Your task to perform on an android device: open app "TextNow: Call + Text Unlimited" (install if not already installed) and enter user name: "stoke@yahoo.com" and password: "prompted" Image 0: 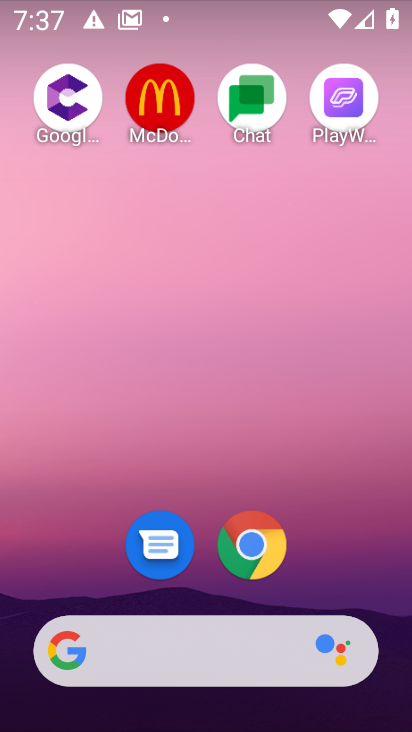
Step 0: press home button
Your task to perform on an android device: open app "TextNow: Call + Text Unlimited" (install if not already installed) and enter user name: "stoke@yahoo.com" and password: "prompted" Image 1: 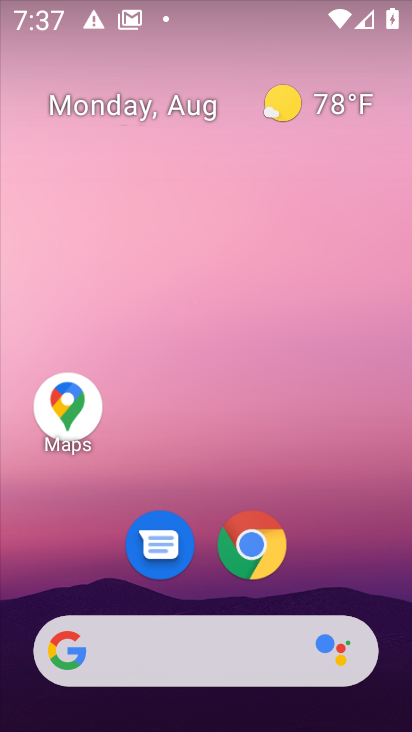
Step 1: drag from (324, 579) to (358, 138)
Your task to perform on an android device: open app "TextNow: Call + Text Unlimited" (install if not already installed) and enter user name: "stoke@yahoo.com" and password: "prompted" Image 2: 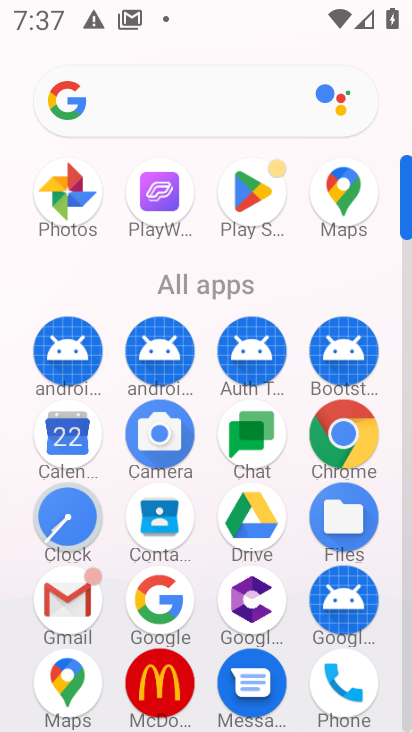
Step 2: click (260, 197)
Your task to perform on an android device: open app "TextNow: Call + Text Unlimited" (install if not already installed) and enter user name: "stoke@yahoo.com" and password: "prompted" Image 3: 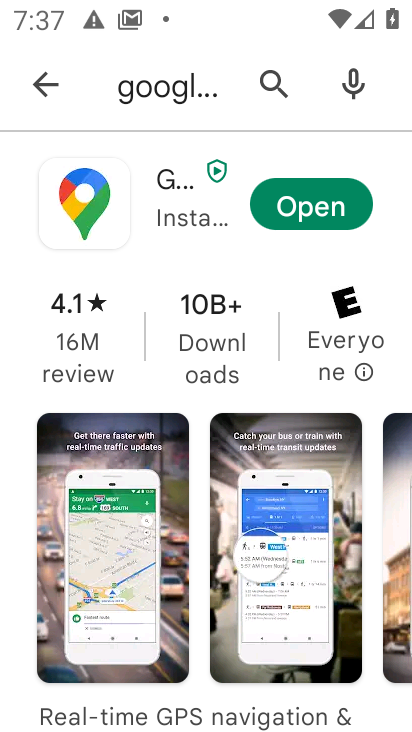
Step 3: press back button
Your task to perform on an android device: open app "TextNow: Call + Text Unlimited" (install if not already installed) and enter user name: "stoke@yahoo.com" and password: "prompted" Image 4: 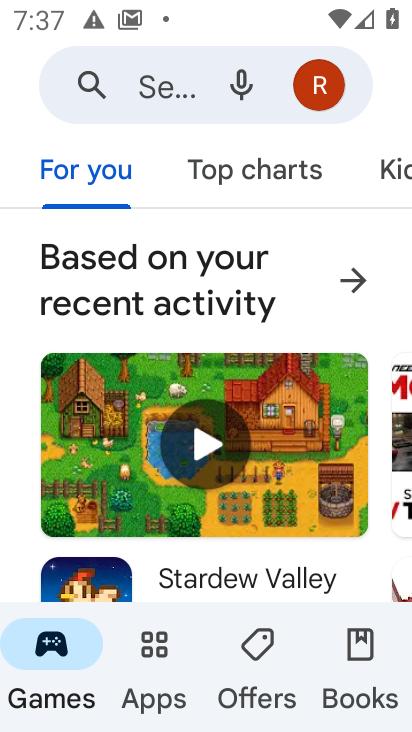
Step 4: click (164, 91)
Your task to perform on an android device: open app "TextNow: Call + Text Unlimited" (install if not already installed) and enter user name: "stoke@yahoo.com" and password: "prompted" Image 5: 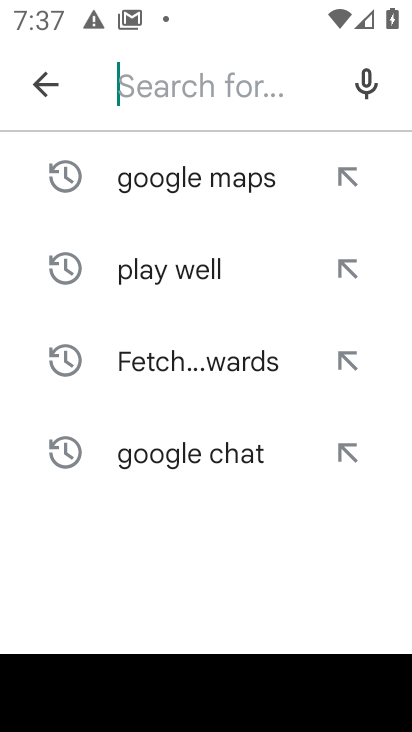
Step 5: type "TextNow: Call + Text Unlimited"
Your task to perform on an android device: open app "TextNow: Call + Text Unlimited" (install if not already installed) and enter user name: "stoke@yahoo.com" and password: "prompted" Image 6: 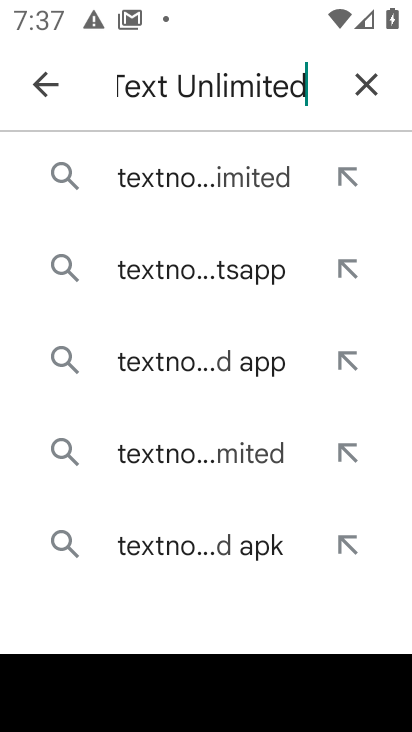
Step 6: click (268, 192)
Your task to perform on an android device: open app "TextNow: Call + Text Unlimited" (install if not already installed) and enter user name: "stoke@yahoo.com" and password: "prompted" Image 7: 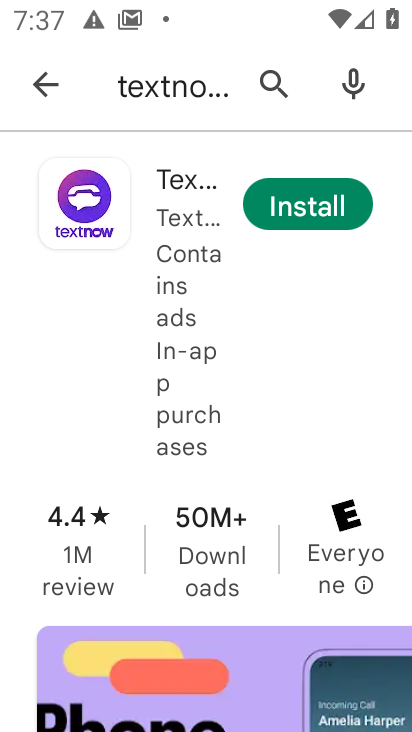
Step 7: click (310, 203)
Your task to perform on an android device: open app "TextNow: Call + Text Unlimited" (install if not already installed) and enter user name: "stoke@yahoo.com" and password: "prompted" Image 8: 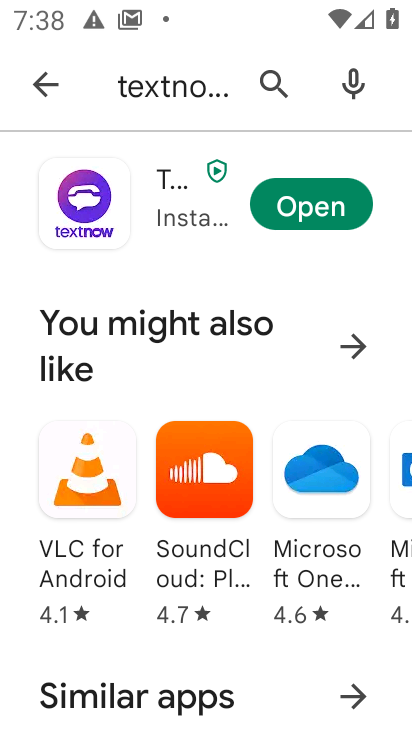
Step 8: click (317, 201)
Your task to perform on an android device: open app "TextNow: Call + Text Unlimited" (install if not already installed) and enter user name: "stoke@yahoo.com" and password: "prompted" Image 9: 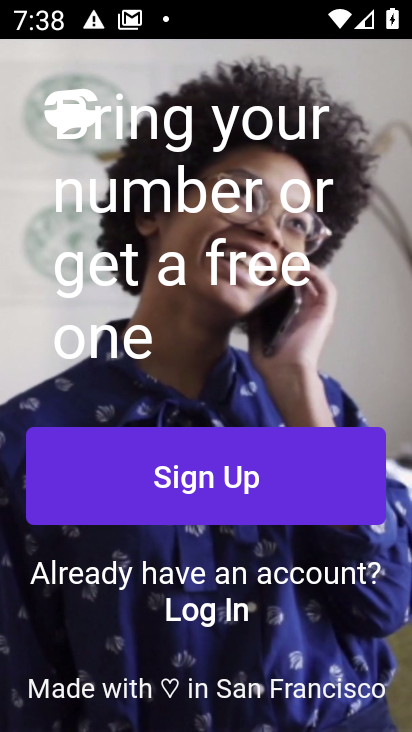
Step 9: click (208, 616)
Your task to perform on an android device: open app "TextNow: Call + Text Unlimited" (install if not already installed) and enter user name: "stoke@yahoo.com" and password: "prompted" Image 10: 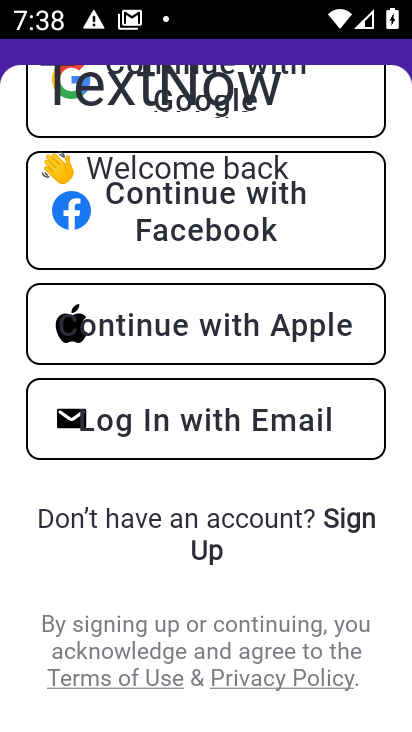
Step 10: click (207, 424)
Your task to perform on an android device: open app "TextNow: Call + Text Unlimited" (install if not already installed) and enter user name: "stoke@yahoo.com" and password: "prompted" Image 11: 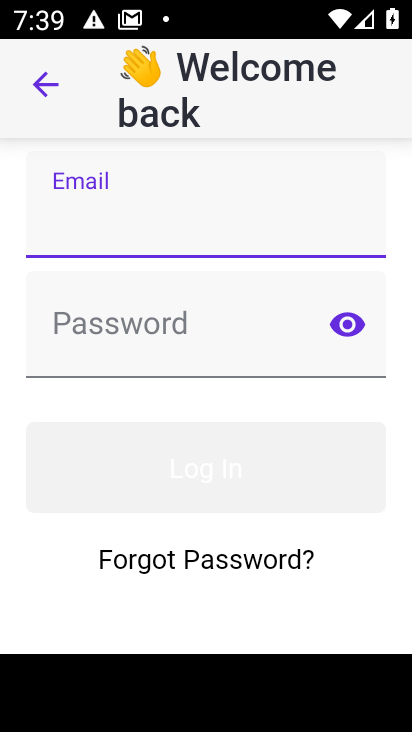
Step 11: type "stoke@yahoo.com"
Your task to perform on an android device: open app "TextNow: Call + Text Unlimited" (install if not already installed) and enter user name: "stoke@yahoo.com" and password: "prompted" Image 12: 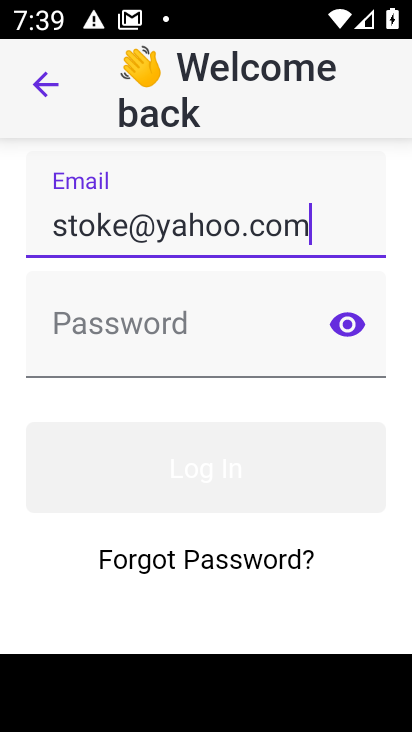
Step 12: click (126, 345)
Your task to perform on an android device: open app "TextNow: Call + Text Unlimited" (install if not already installed) and enter user name: "stoke@yahoo.com" and password: "prompted" Image 13: 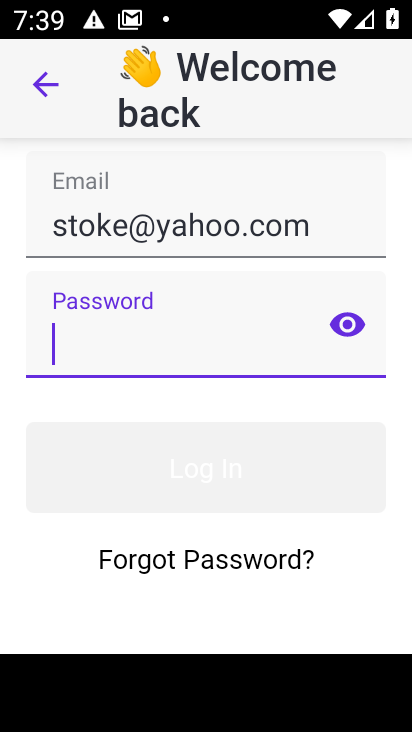
Step 13: type "prompted"
Your task to perform on an android device: open app "TextNow: Call + Text Unlimited" (install if not already installed) and enter user name: "stoke@yahoo.com" and password: "prompted" Image 14: 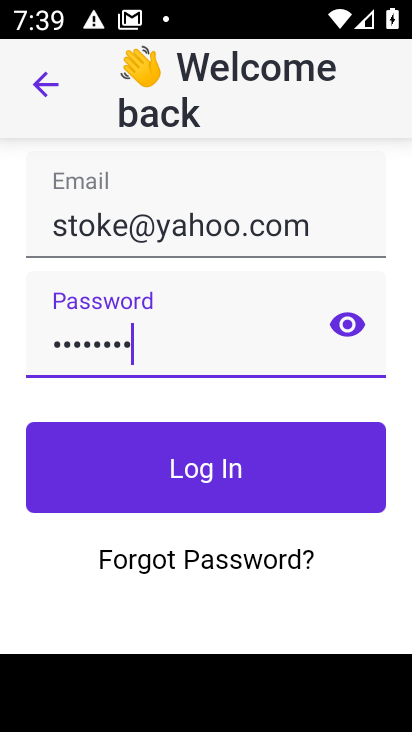
Step 14: task complete